Your task to perform on an android device: Do I have any events this weekend? Image 0: 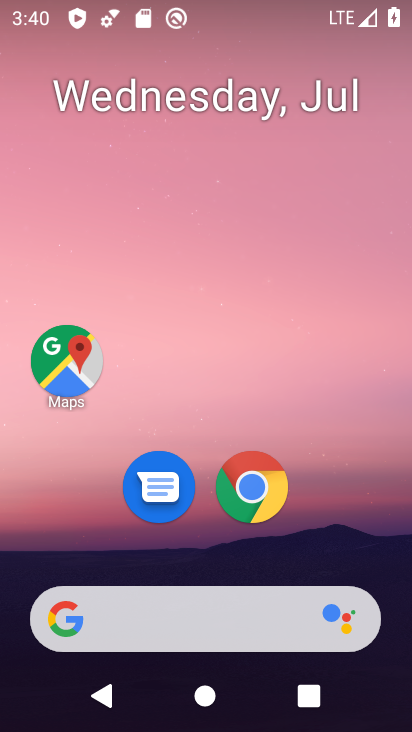
Step 0: drag from (179, 658) to (251, 156)
Your task to perform on an android device: Do I have any events this weekend? Image 1: 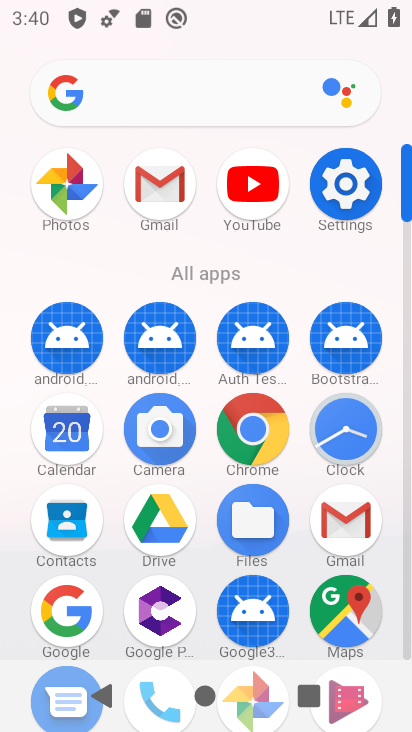
Step 1: click (74, 434)
Your task to perform on an android device: Do I have any events this weekend? Image 2: 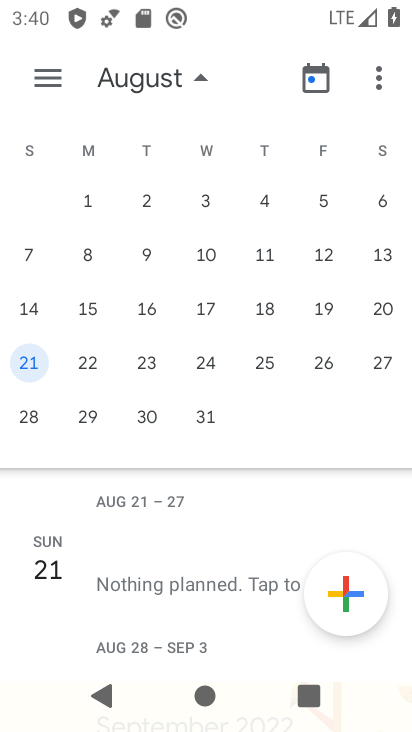
Step 2: drag from (55, 281) to (410, 386)
Your task to perform on an android device: Do I have any events this weekend? Image 3: 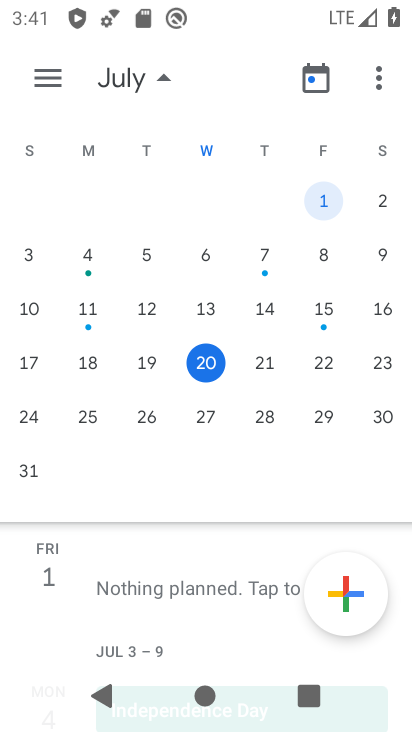
Step 3: click (383, 361)
Your task to perform on an android device: Do I have any events this weekend? Image 4: 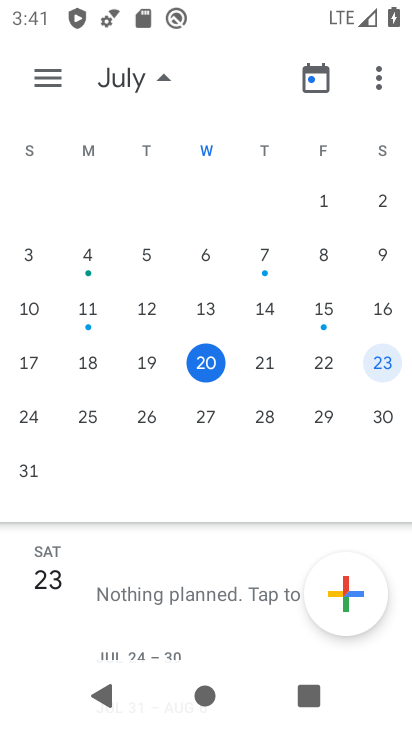
Step 4: task complete